Your task to perform on an android device: What's the weather going to be tomorrow? Image 0: 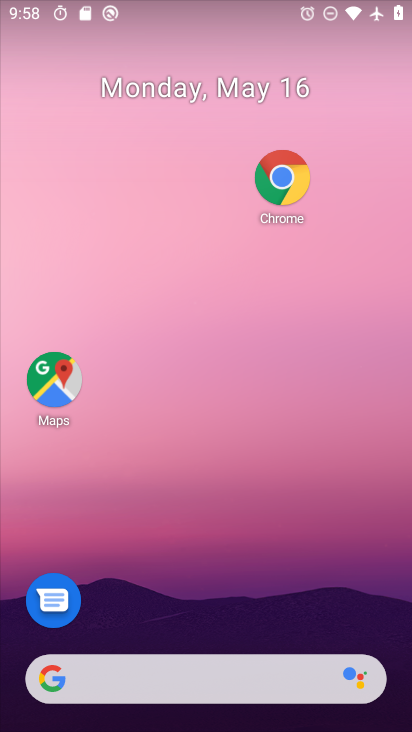
Step 0: click (55, 683)
Your task to perform on an android device: What's the weather going to be tomorrow? Image 1: 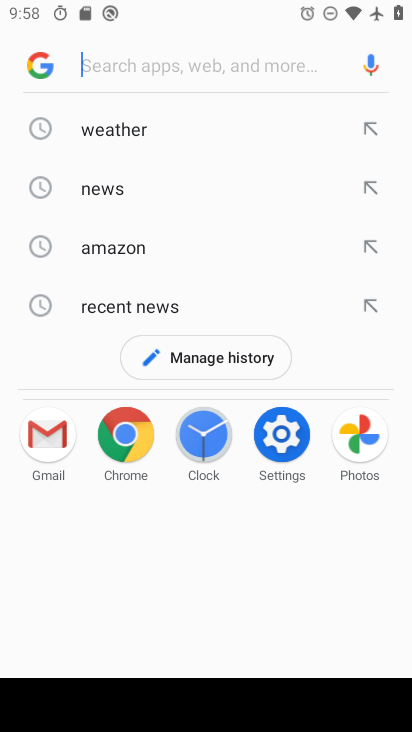
Step 1: click (149, 122)
Your task to perform on an android device: What's the weather going to be tomorrow? Image 2: 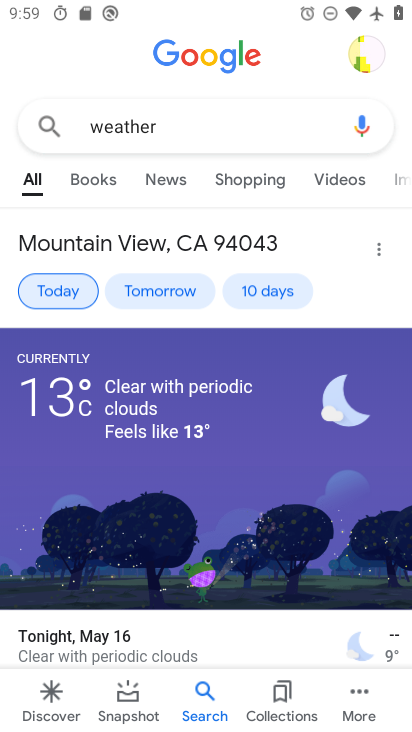
Step 2: click (168, 301)
Your task to perform on an android device: What's the weather going to be tomorrow? Image 3: 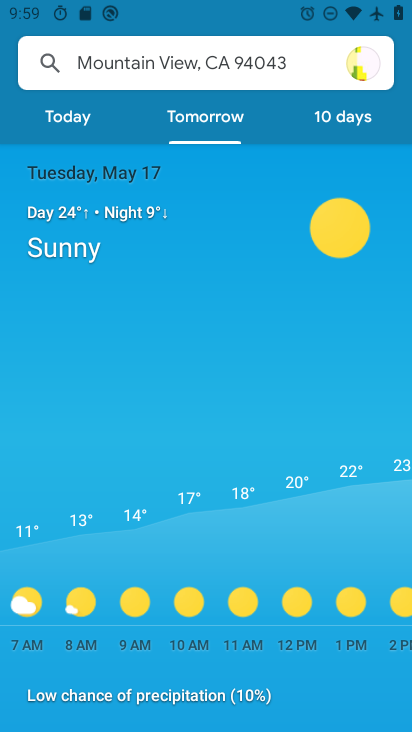
Step 3: task complete